Your task to perform on an android device: visit the assistant section in the google photos Image 0: 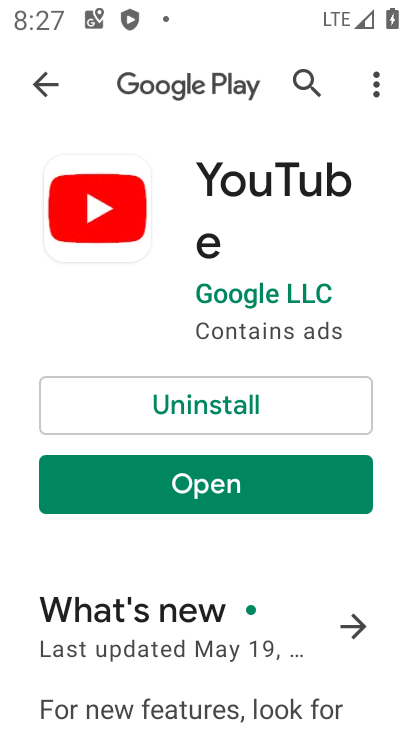
Step 0: press home button
Your task to perform on an android device: visit the assistant section in the google photos Image 1: 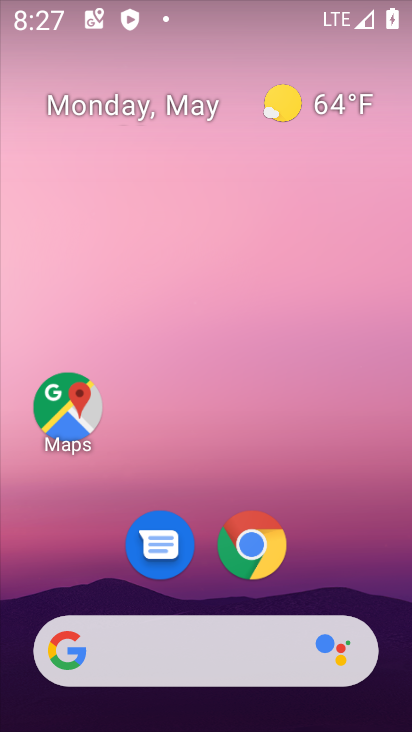
Step 1: drag from (209, 654) to (276, 81)
Your task to perform on an android device: visit the assistant section in the google photos Image 2: 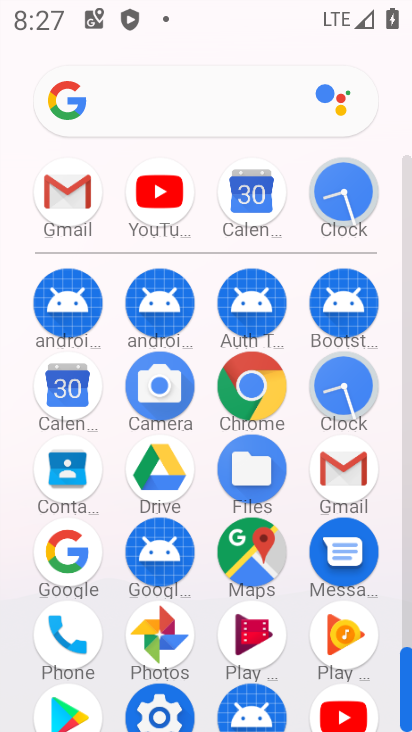
Step 2: click (154, 630)
Your task to perform on an android device: visit the assistant section in the google photos Image 3: 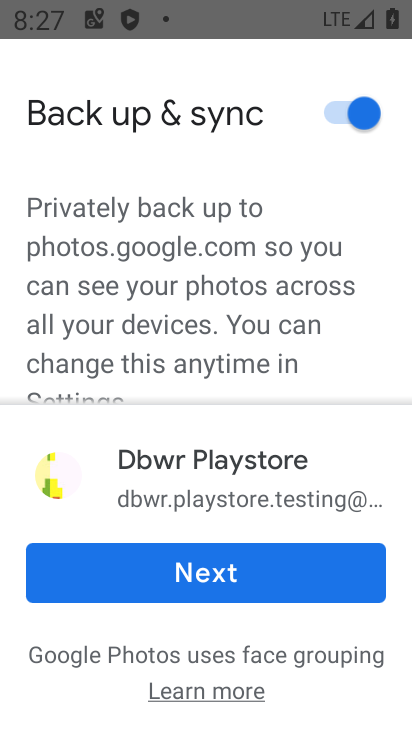
Step 3: click (189, 578)
Your task to perform on an android device: visit the assistant section in the google photos Image 4: 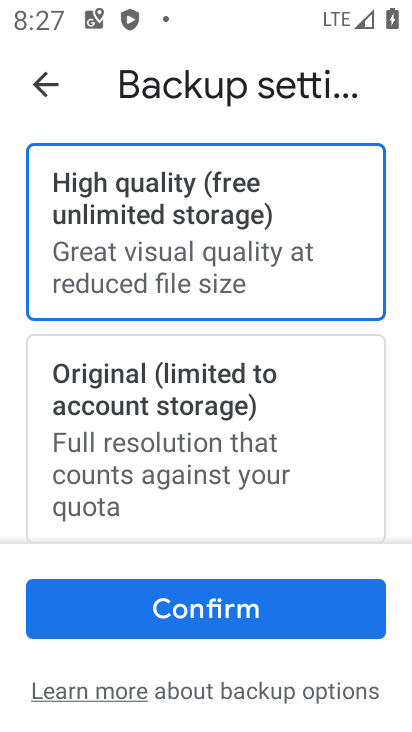
Step 4: click (237, 597)
Your task to perform on an android device: visit the assistant section in the google photos Image 5: 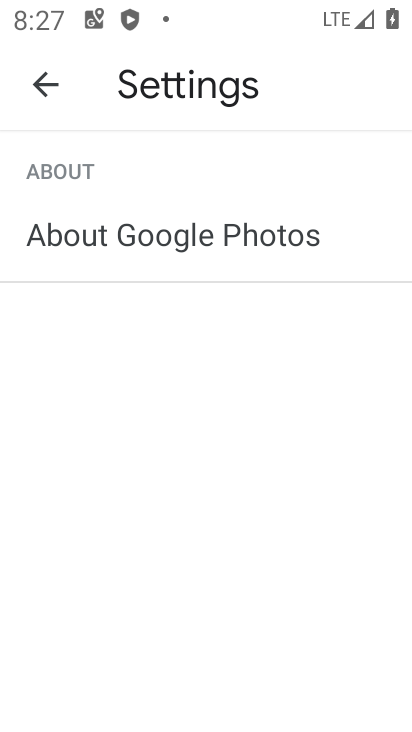
Step 5: click (27, 96)
Your task to perform on an android device: visit the assistant section in the google photos Image 6: 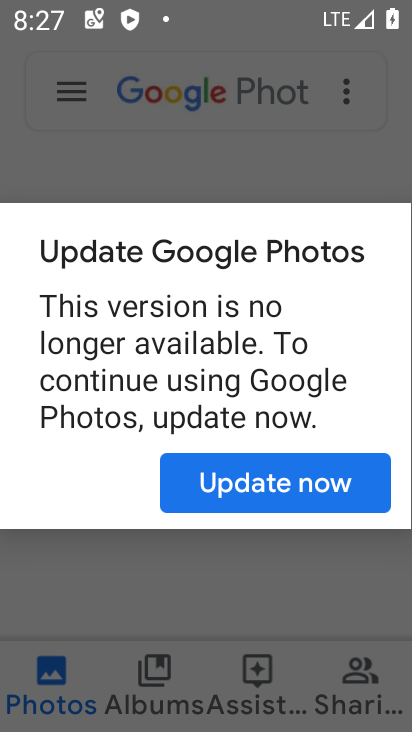
Step 6: click (264, 491)
Your task to perform on an android device: visit the assistant section in the google photos Image 7: 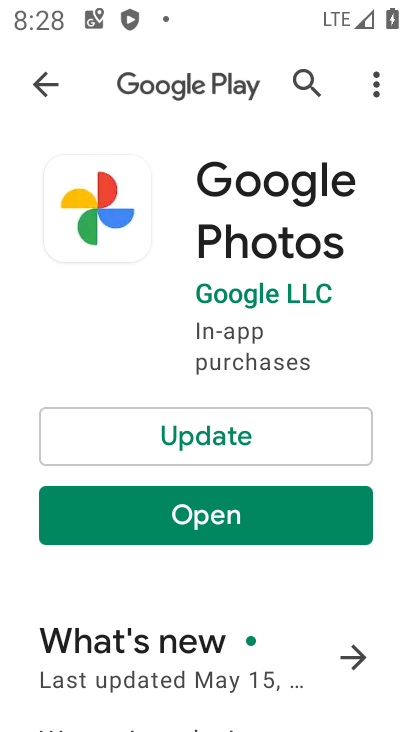
Step 7: click (228, 458)
Your task to perform on an android device: visit the assistant section in the google photos Image 8: 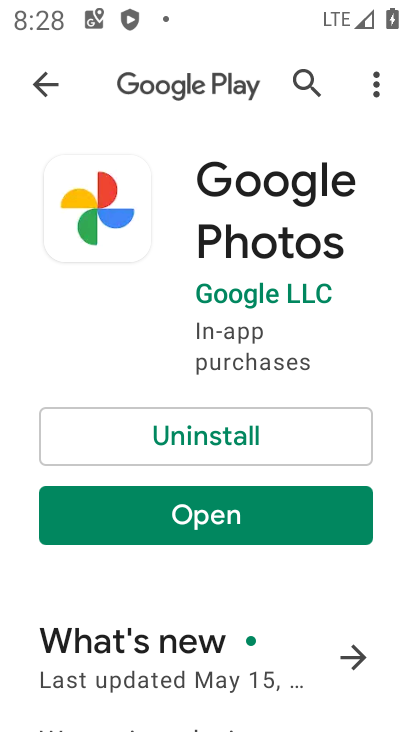
Step 8: click (203, 514)
Your task to perform on an android device: visit the assistant section in the google photos Image 9: 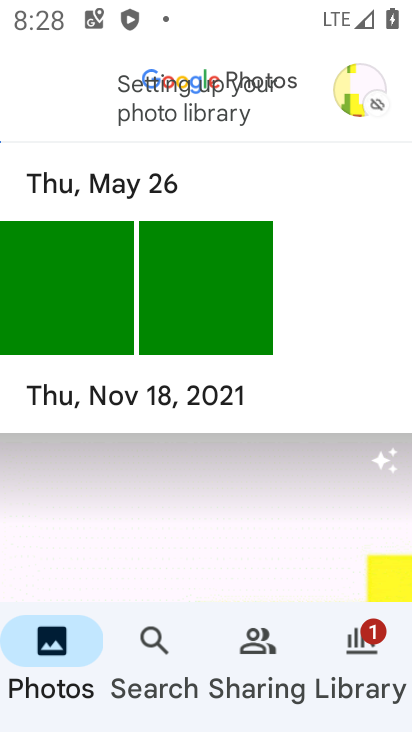
Step 9: task complete